Your task to perform on an android device: Search for Italian restaurants on Maps Image 0: 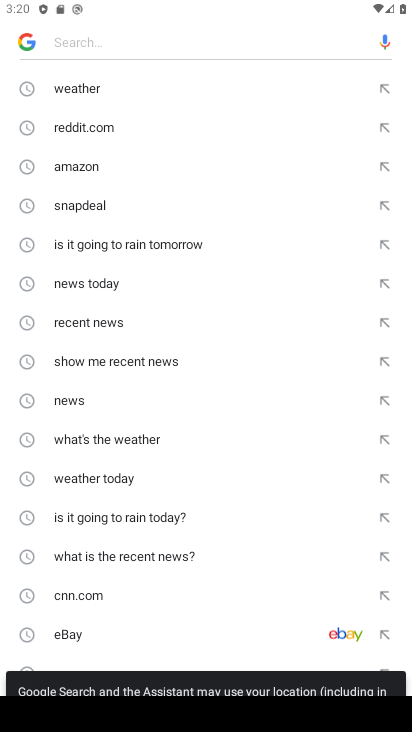
Step 0: press home button
Your task to perform on an android device: Search for Italian restaurants on Maps Image 1: 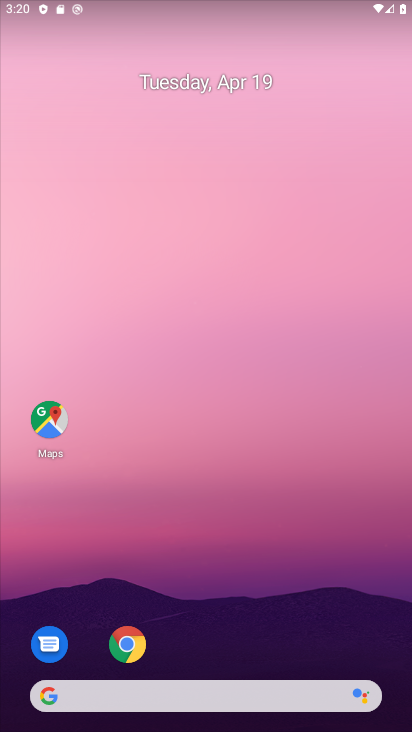
Step 1: click (55, 406)
Your task to perform on an android device: Search for Italian restaurants on Maps Image 2: 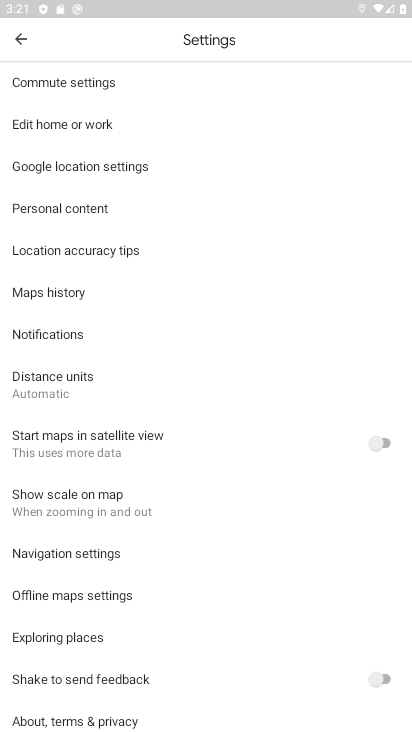
Step 2: press home button
Your task to perform on an android device: Search for Italian restaurants on Maps Image 3: 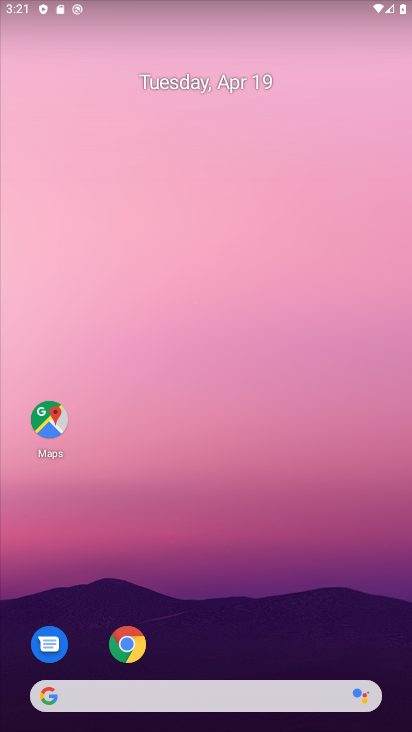
Step 3: click (50, 423)
Your task to perform on an android device: Search for Italian restaurants on Maps Image 4: 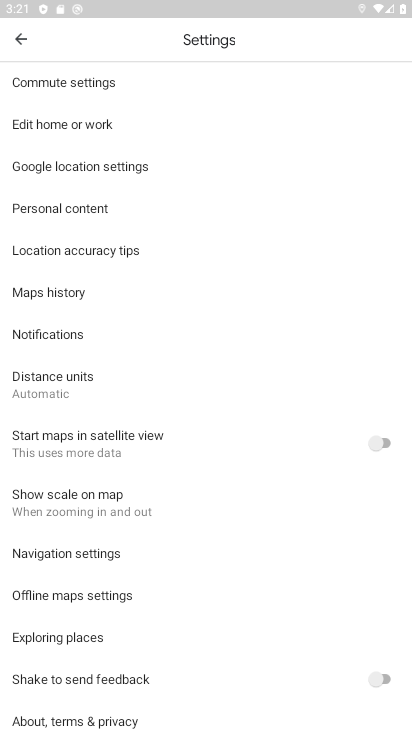
Step 4: press back button
Your task to perform on an android device: Search for Italian restaurants on Maps Image 5: 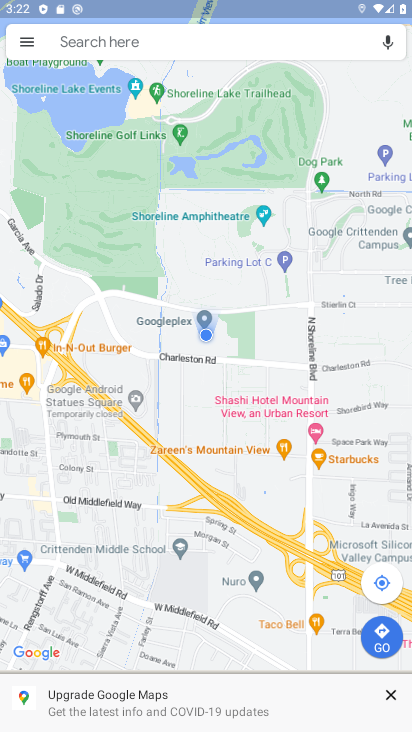
Step 5: click (87, 32)
Your task to perform on an android device: Search for Italian restaurants on Maps Image 6: 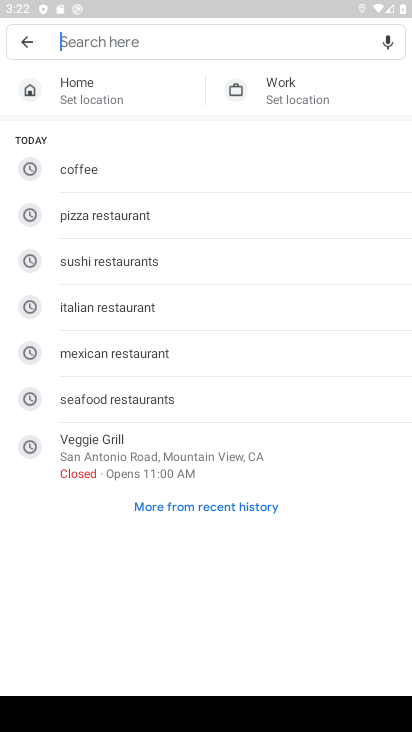
Step 6: type "talian restaurants"
Your task to perform on an android device: Search for Italian restaurants on Maps Image 7: 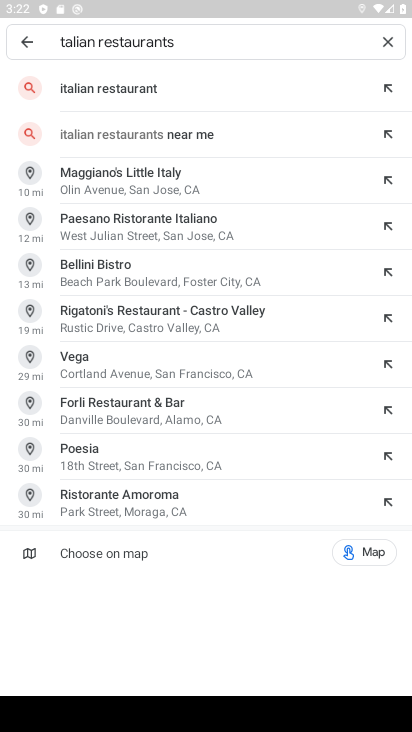
Step 7: click (170, 83)
Your task to perform on an android device: Search for Italian restaurants on Maps Image 8: 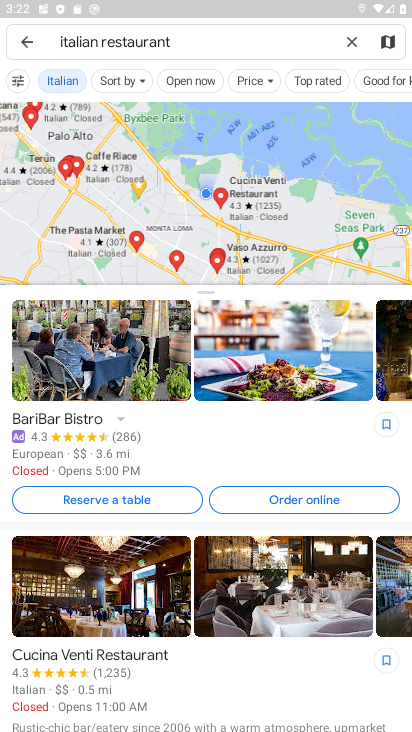
Step 8: task complete